Your task to perform on an android device: change notification settings in the gmail app Image 0: 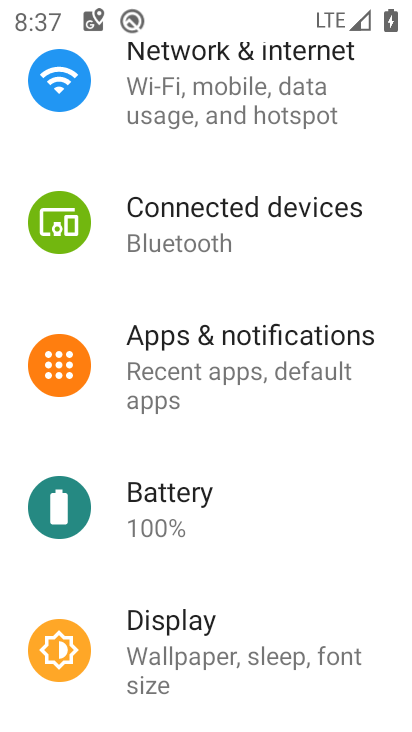
Step 0: press home button
Your task to perform on an android device: change notification settings in the gmail app Image 1: 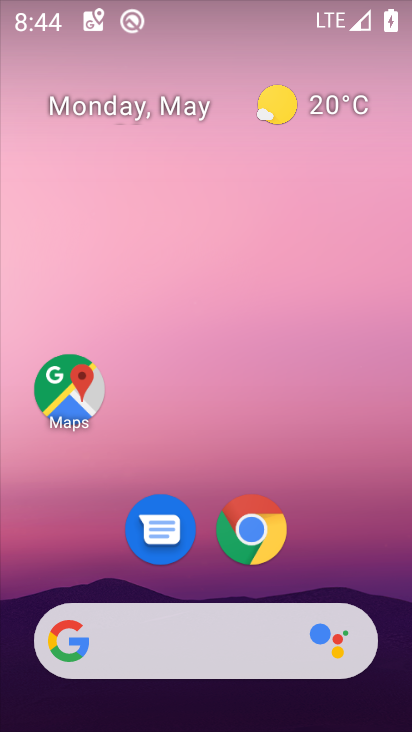
Step 1: task complete